Your task to perform on an android device: toggle priority inbox in the gmail app Image 0: 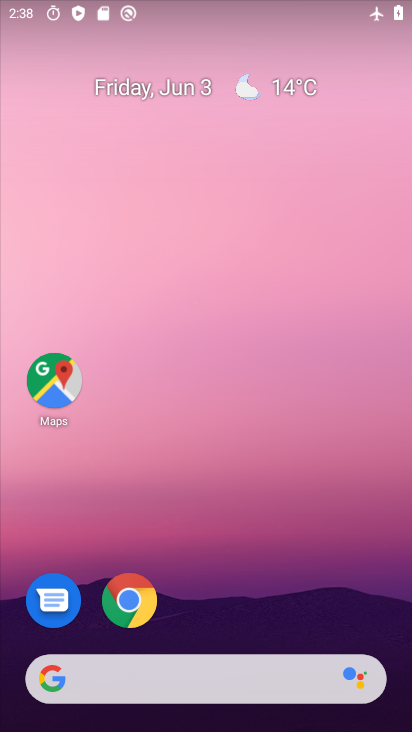
Step 0: drag from (276, 543) to (216, 10)
Your task to perform on an android device: toggle priority inbox in the gmail app Image 1: 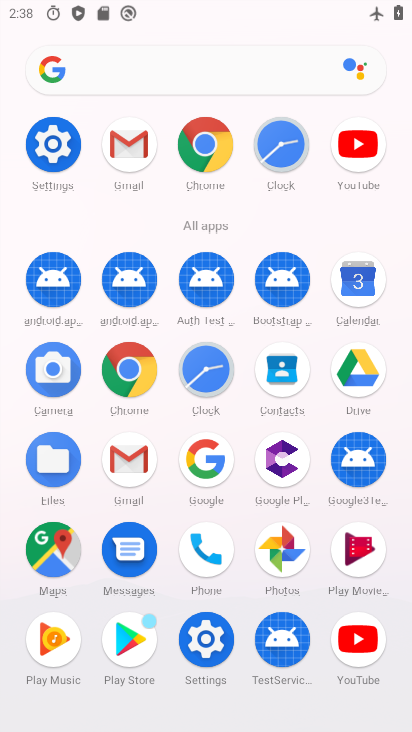
Step 1: click (130, 452)
Your task to perform on an android device: toggle priority inbox in the gmail app Image 2: 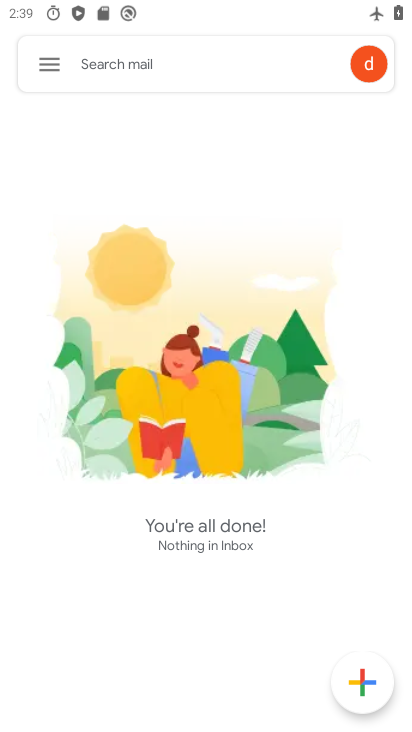
Step 2: click (47, 55)
Your task to perform on an android device: toggle priority inbox in the gmail app Image 3: 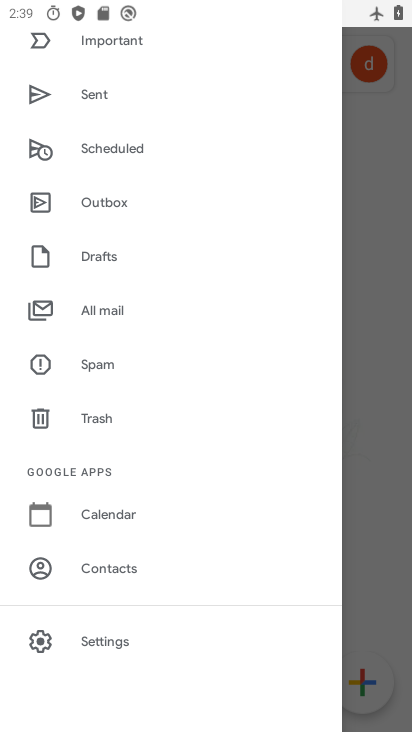
Step 3: click (98, 646)
Your task to perform on an android device: toggle priority inbox in the gmail app Image 4: 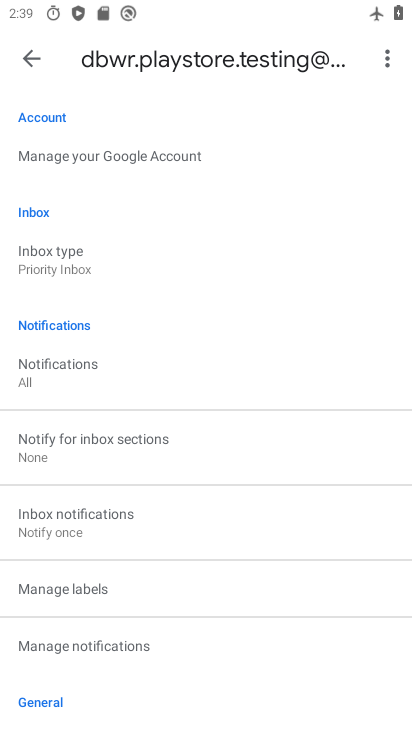
Step 4: click (98, 266)
Your task to perform on an android device: toggle priority inbox in the gmail app Image 5: 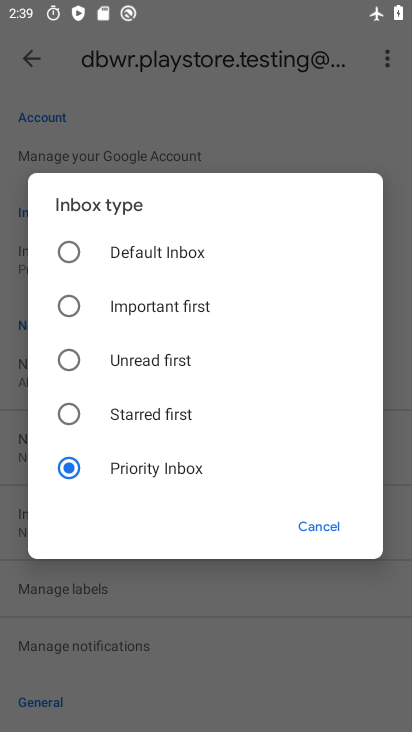
Step 5: click (108, 261)
Your task to perform on an android device: toggle priority inbox in the gmail app Image 6: 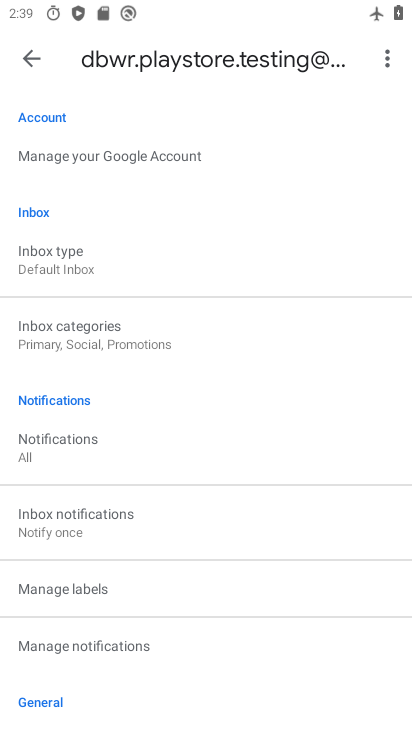
Step 6: task complete